Your task to perform on an android device: Open Youtube and go to the subscriptions tab Image 0: 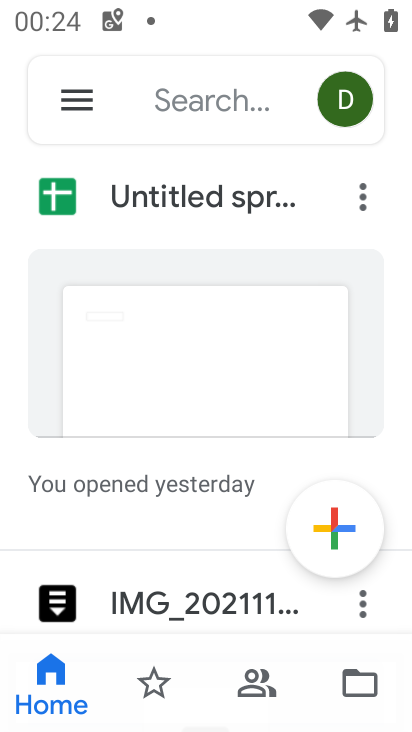
Step 0: press home button
Your task to perform on an android device: Open Youtube and go to the subscriptions tab Image 1: 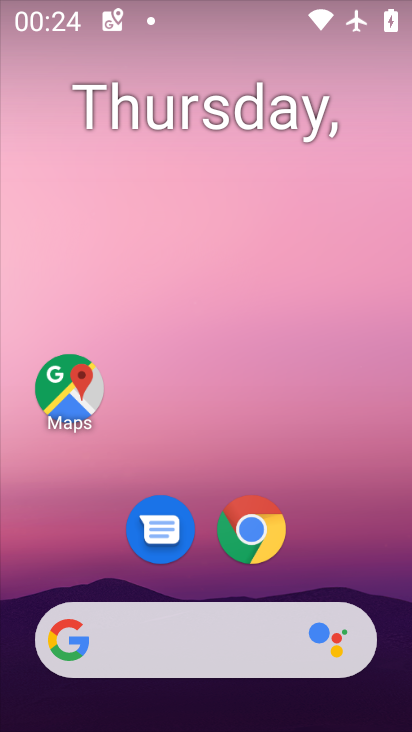
Step 1: drag from (407, 638) to (342, 138)
Your task to perform on an android device: Open Youtube and go to the subscriptions tab Image 2: 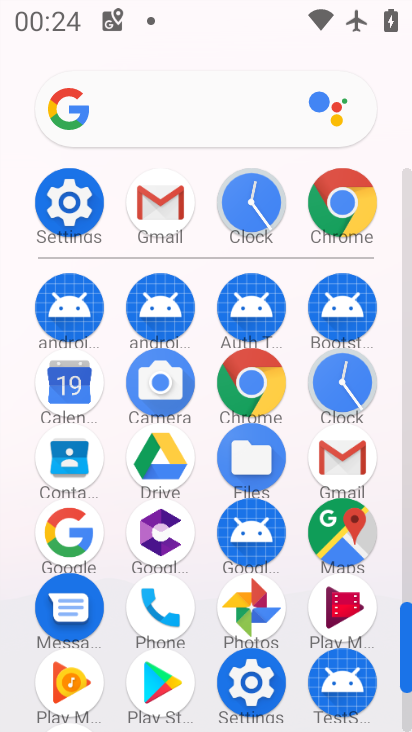
Step 2: click (407, 722)
Your task to perform on an android device: Open Youtube and go to the subscriptions tab Image 3: 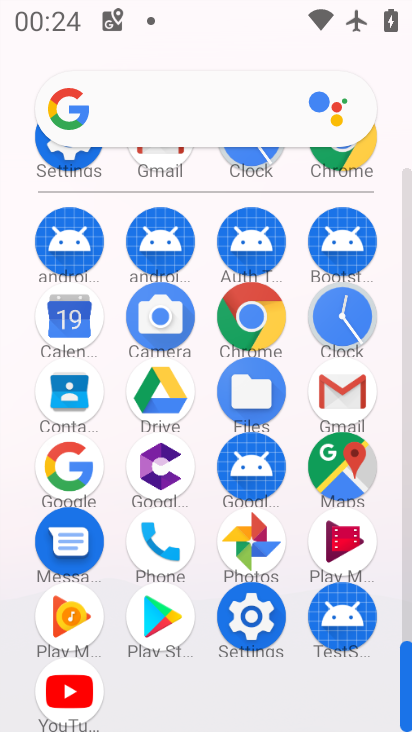
Step 3: click (68, 690)
Your task to perform on an android device: Open Youtube and go to the subscriptions tab Image 4: 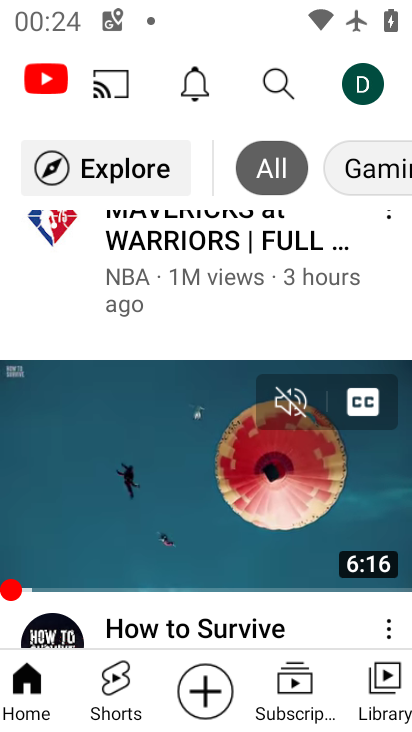
Step 4: click (304, 682)
Your task to perform on an android device: Open Youtube and go to the subscriptions tab Image 5: 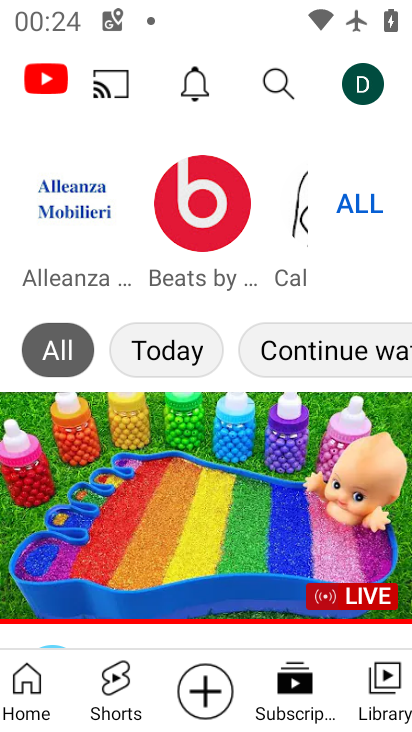
Step 5: task complete